Your task to perform on an android device: turn on priority inbox in the gmail app Image 0: 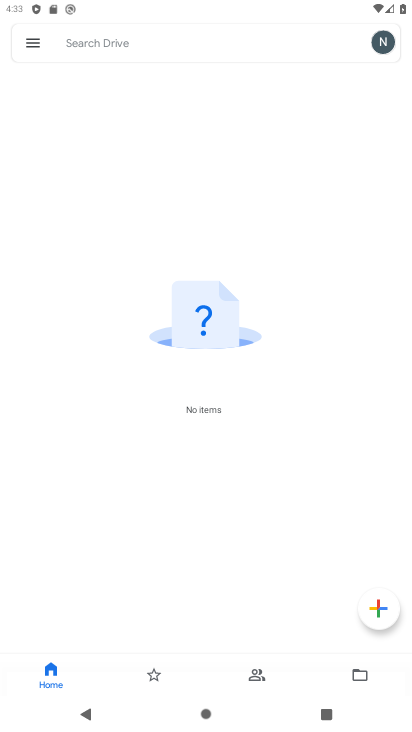
Step 0: press home button
Your task to perform on an android device: turn on priority inbox in the gmail app Image 1: 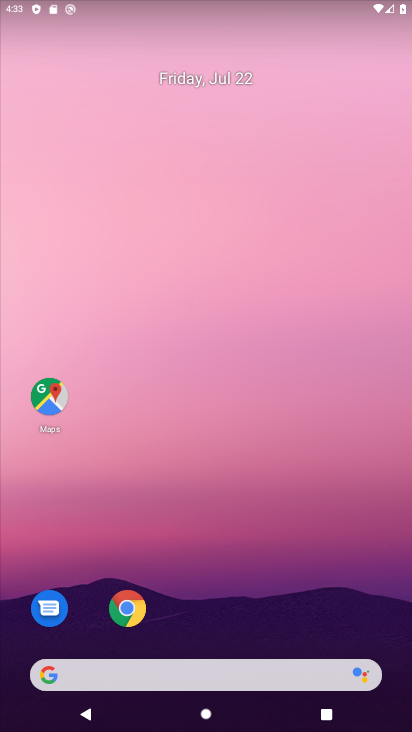
Step 1: drag from (185, 635) to (226, 74)
Your task to perform on an android device: turn on priority inbox in the gmail app Image 2: 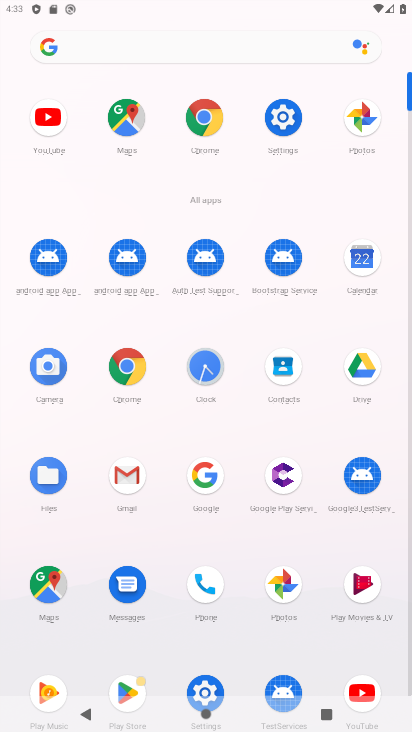
Step 2: click (136, 475)
Your task to perform on an android device: turn on priority inbox in the gmail app Image 3: 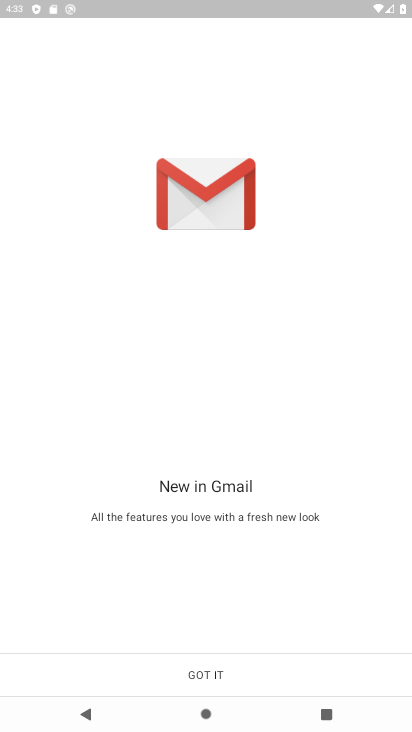
Step 3: click (221, 692)
Your task to perform on an android device: turn on priority inbox in the gmail app Image 4: 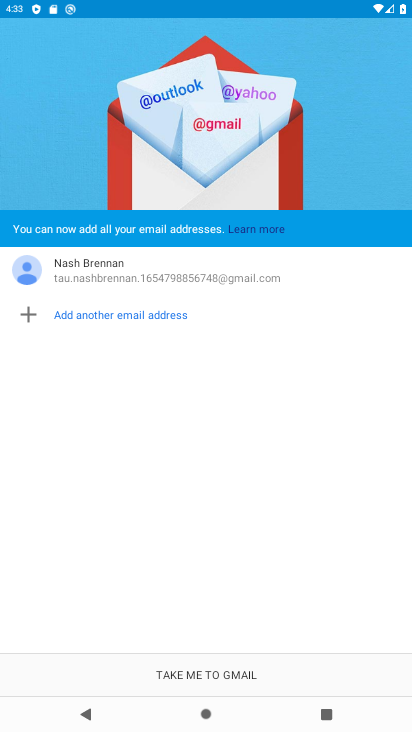
Step 4: click (221, 692)
Your task to perform on an android device: turn on priority inbox in the gmail app Image 5: 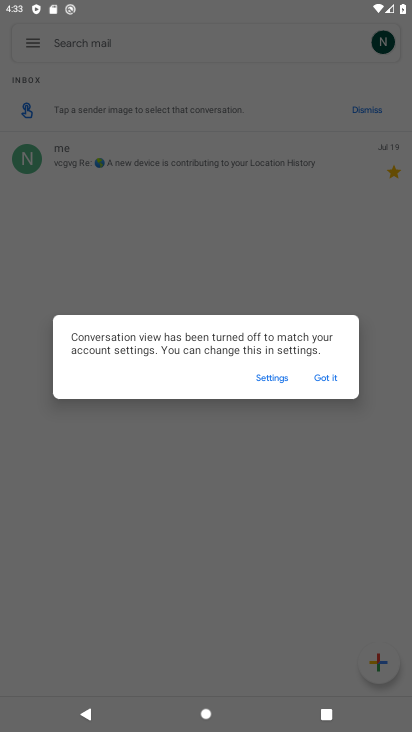
Step 5: click (326, 377)
Your task to perform on an android device: turn on priority inbox in the gmail app Image 6: 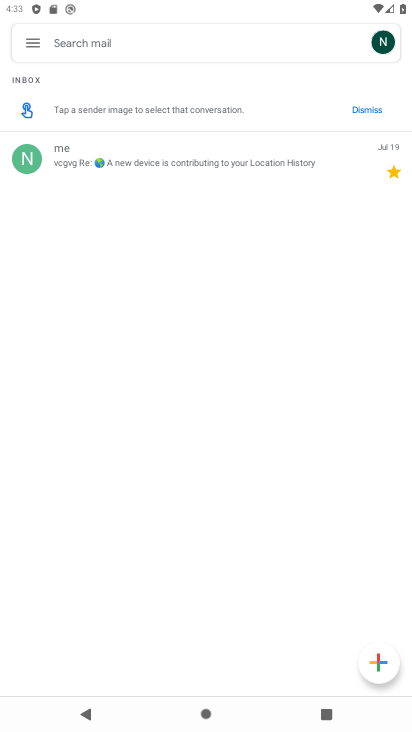
Step 6: click (41, 50)
Your task to perform on an android device: turn on priority inbox in the gmail app Image 7: 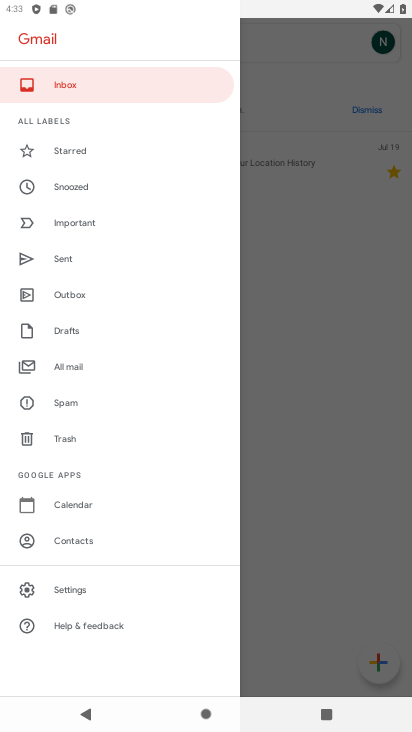
Step 7: click (75, 585)
Your task to perform on an android device: turn on priority inbox in the gmail app Image 8: 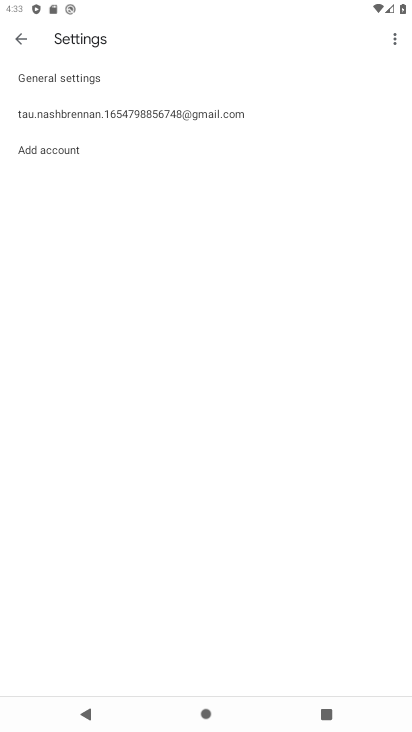
Step 8: click (90, 107)
Your task to perform on an android device: turn on priority inbox in the gmail app Image 9: 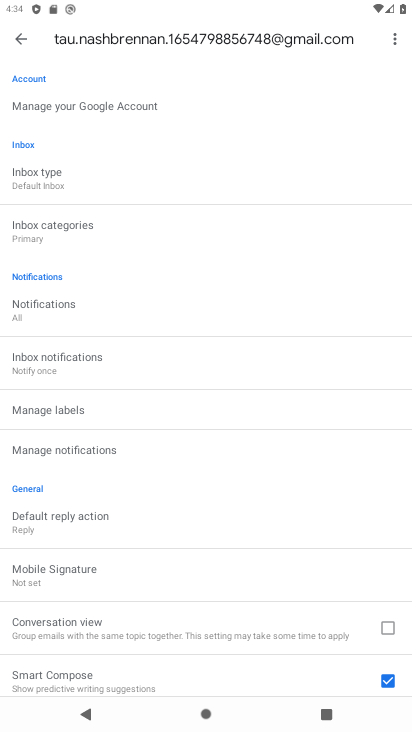
Step 9: click (81, 191)
Your task to perform on an android device: turn on priority inbox in the gmail app Image 10: 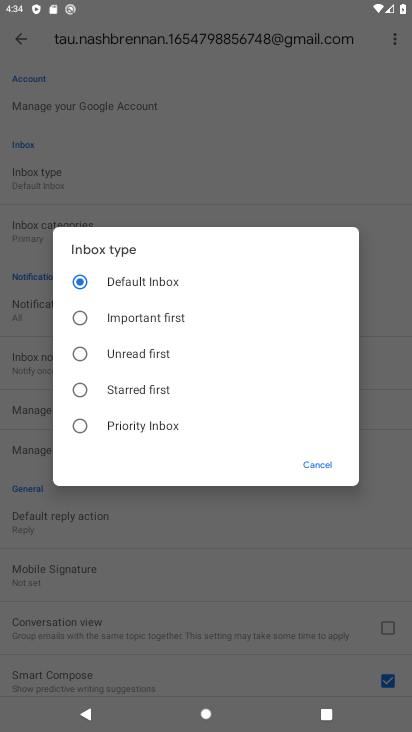
Step 10: click (111, 436)
Your task to perform on an android device: turn on priority inbox in the gmail app Image 11: 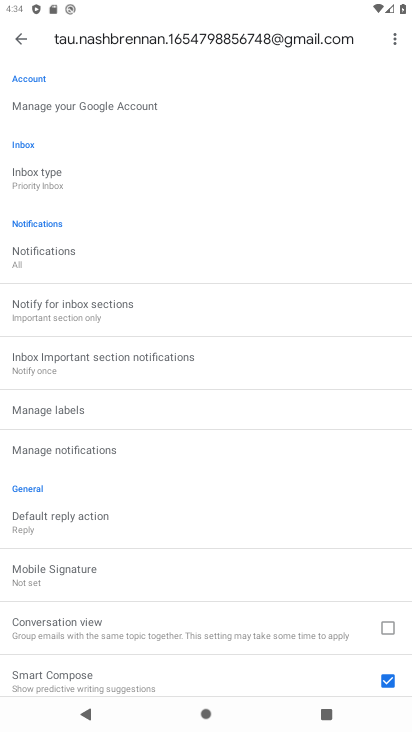
Step 11: task complete